Your task to perform on an android device: set default search engine in the chrome app Image 0: 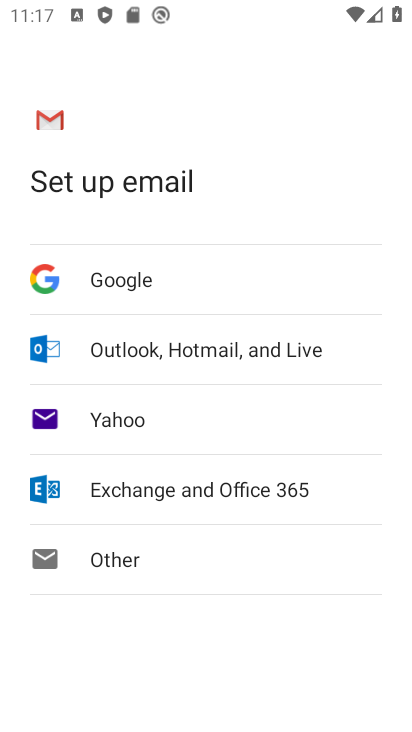
Step 0: press home button
Your task to perform on an android device: set default search engine in the chrome app Image 1: 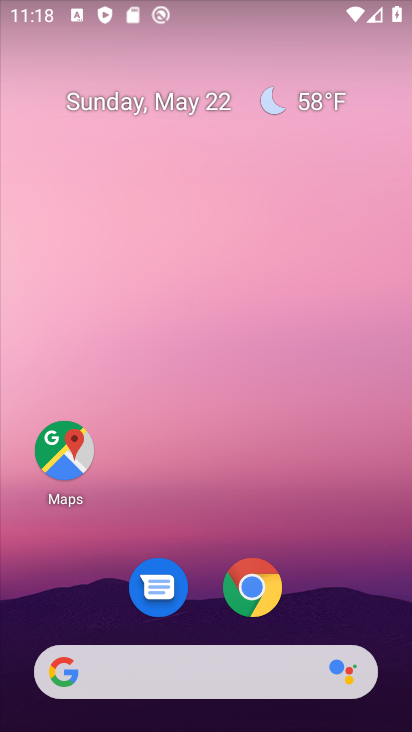
Step 1: click (252, 584)
Your task to perform on an android device: set default search engine in the chrome app Image 2: 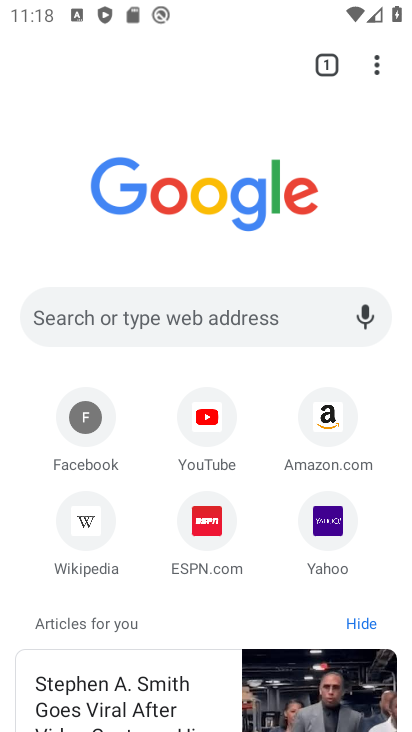
Step 2: click (373, 59)
Your task to perform on an android device: set default search engine in the chrome app Image 3: 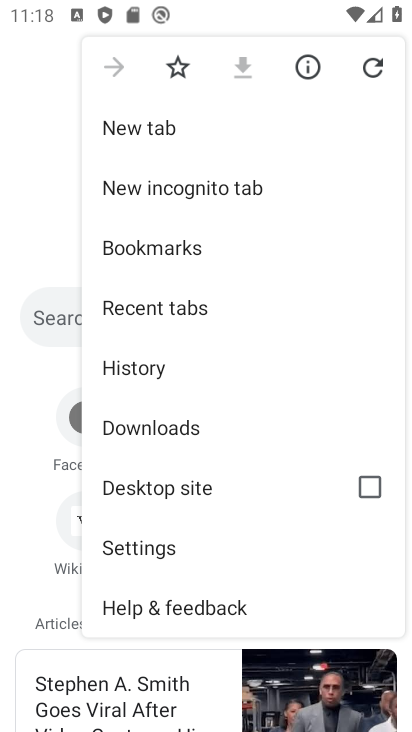
Step 3: click (159, 546)
Your task to perform on an android device: set default search engine in the chrome app Image 4: 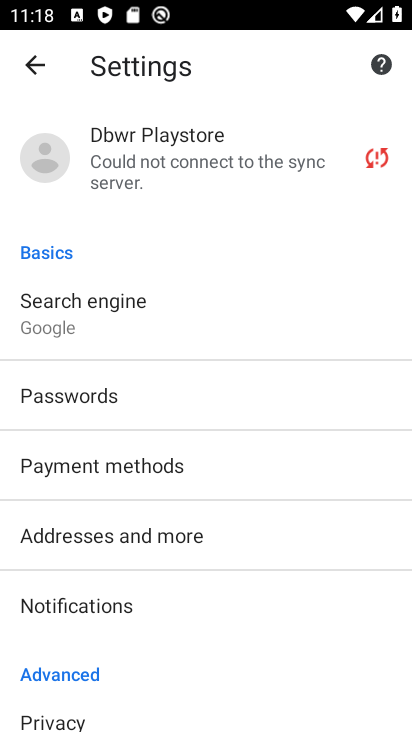
Step 4: click (129, 333)
Your task to perform on an android device: set default search engine in the chrome app Image 5: 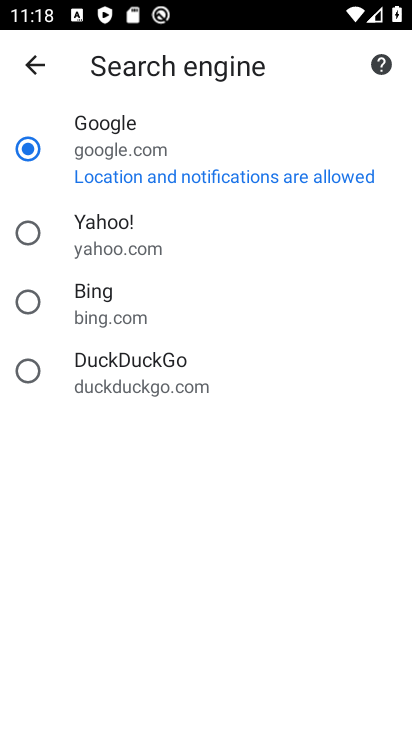
Step 5: task complete